Your task to perform on an android device: check android version Image 0: 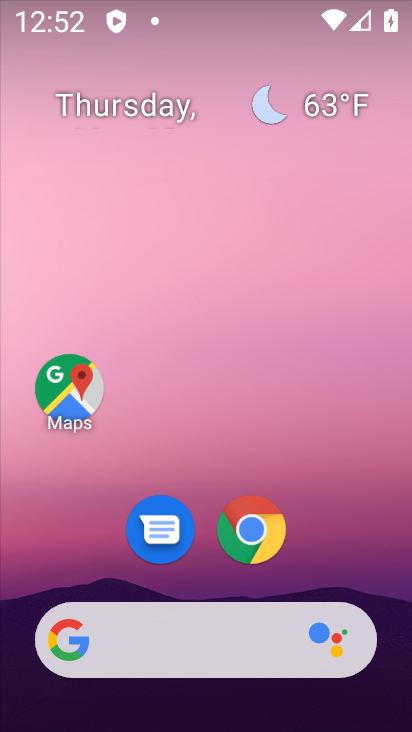
Step 0: drag from (334, 553) to (311, 105)
Your task to perform on an android device: check android version Image 1: 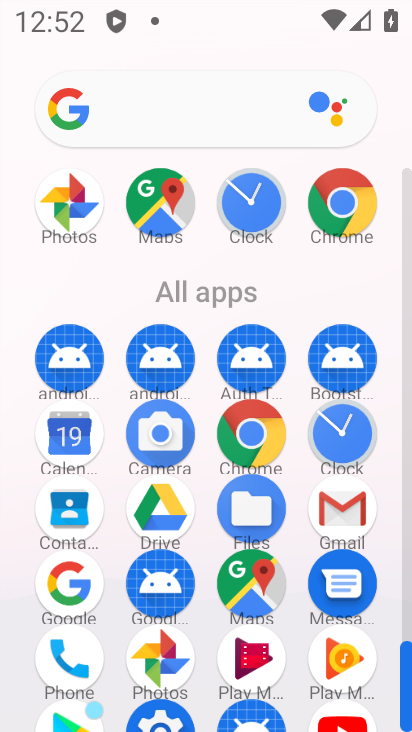
Step 1: drag from (301, 493) to (298, 305)
Your task to perform on an android device: check android version Image 2: 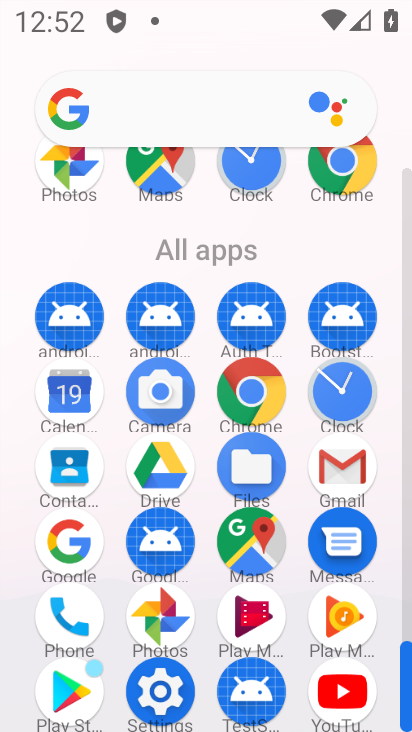
Step 2: click (162, 692)
Your task to perform on an android device: check android version Image 3: 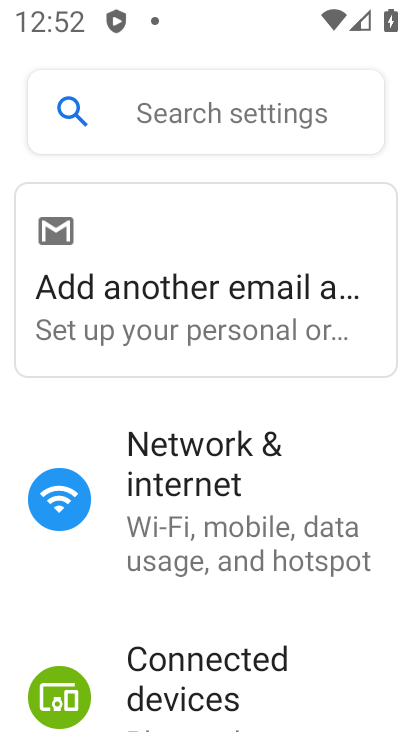
Step 3: drag from (212, 611) to (257, 466)
Your task to perform on an android device: check android version Image 4: 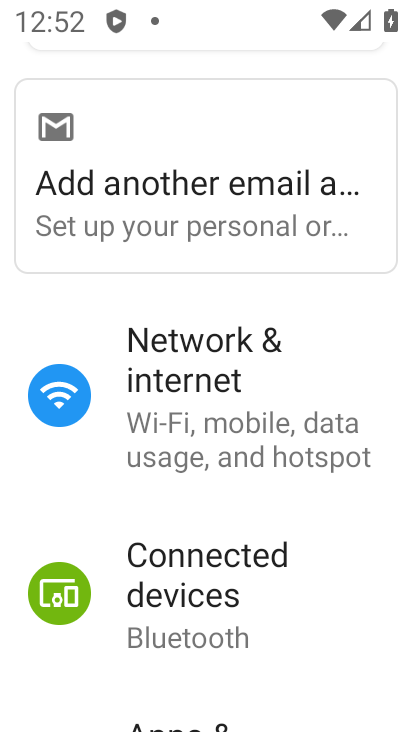
Step 4: drag from (202, 670) to (232, 456)
Your task to perform on an android device: check android version Image 5: 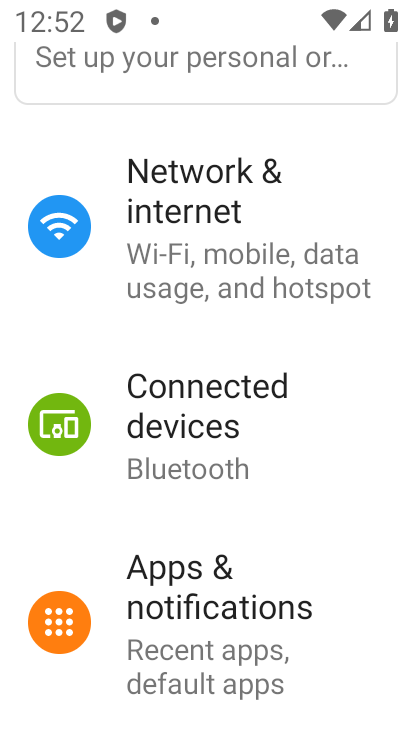
Step 5: drag from (192, 526) to (238, 344)
Your task to perform on an android device: check android version Image 6: 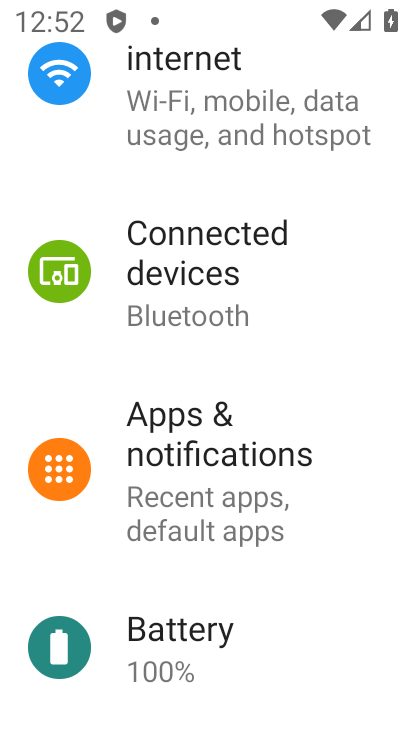
Step 6: drag from (180, 582) to (263, 439)
Your task to perform on an android device: check android version Image 7: 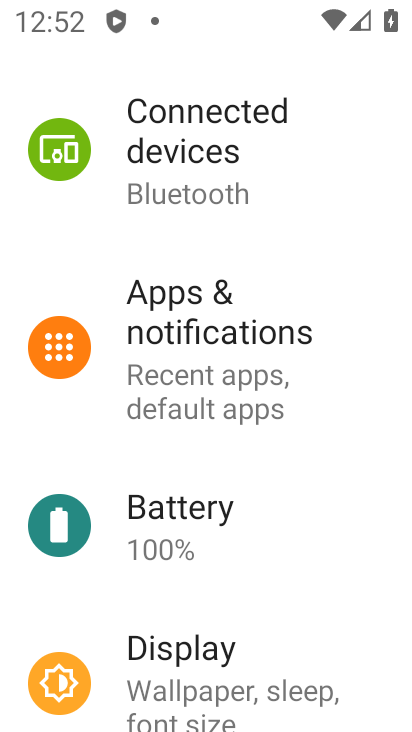
Step 7: drag from (176, 604) to (280, 430)
Your task to perform on an android device: check android version Image 8: 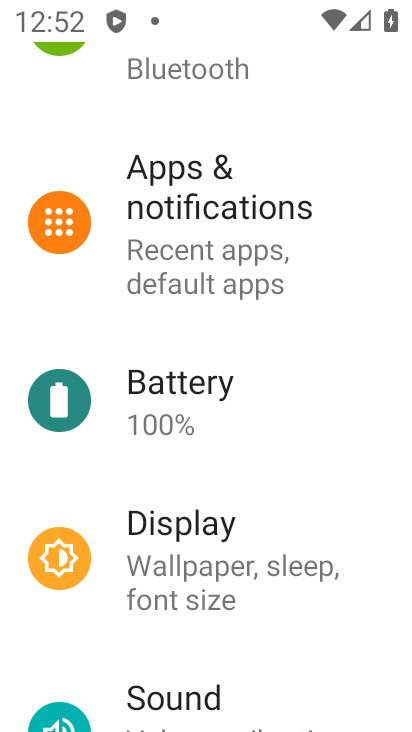
Step 8: drag from (160, 614) to (260, 431)
Your task to perform on an android device: check android version Image 9: 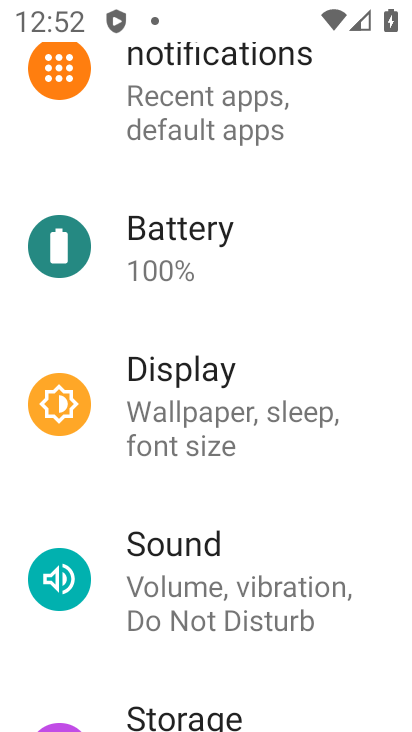
Step 9: drag from (184, 477) to (242, 340)
Your task to perform on an android device: check android version Image 10: 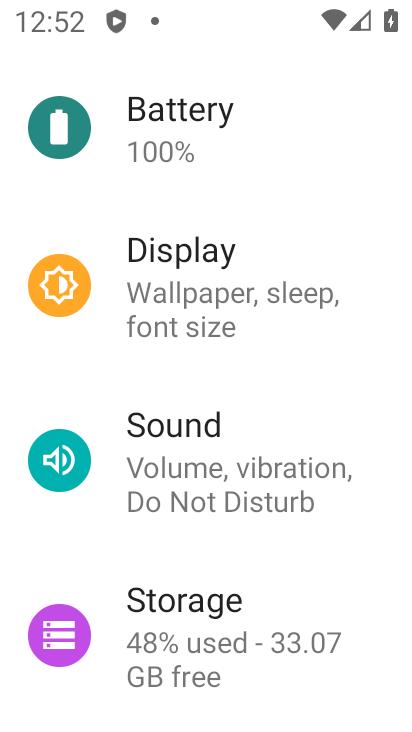
Step 10: drag from (176, 384) to (280, 252)
Your task to perform on an android device: check android version Image 11: 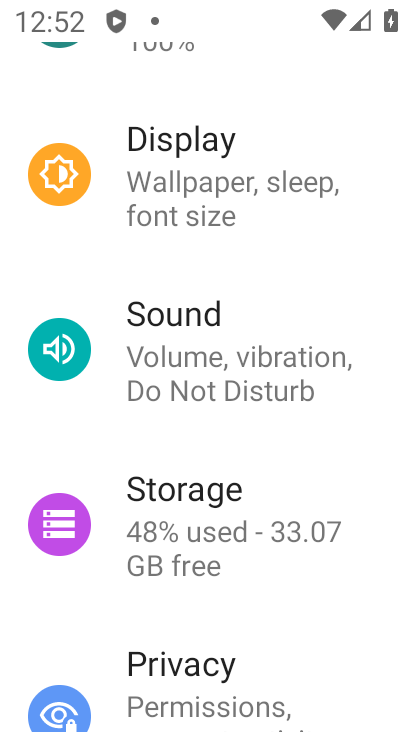
Step 11: drag from (177, 443) to (276, 316)
Your task to perform on an android device: check android version Image 12: 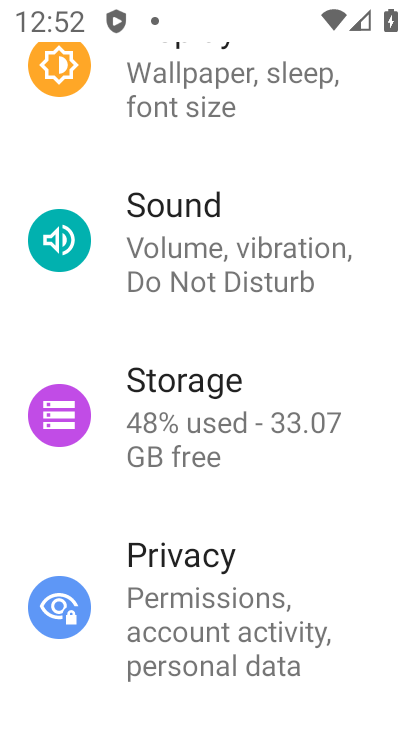
Step 12: drag from (183, 490) to (284, 333)
Your task to perform on an android device: check android version Image 13: 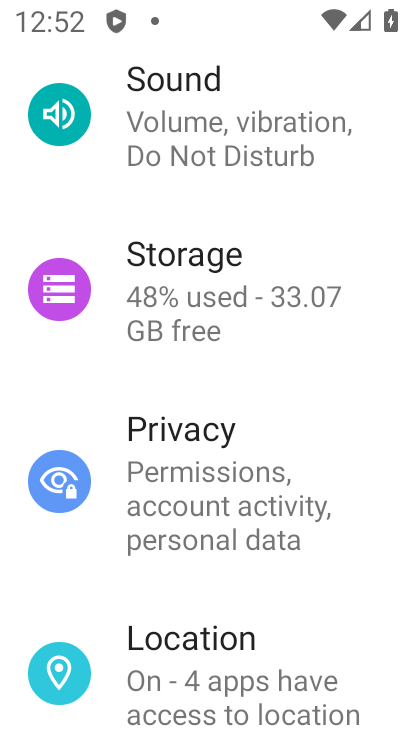
Step 13: drag from (175, 376) to (239, 226)
Your task to perform on an android device: check android version Image 14: 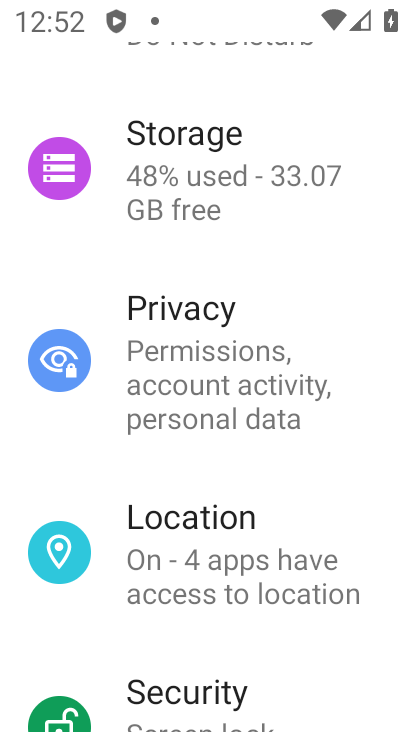
Step 14: drag from (141, 460) to (250, 278)
Your task to perform on an android device: check android version Image 15: 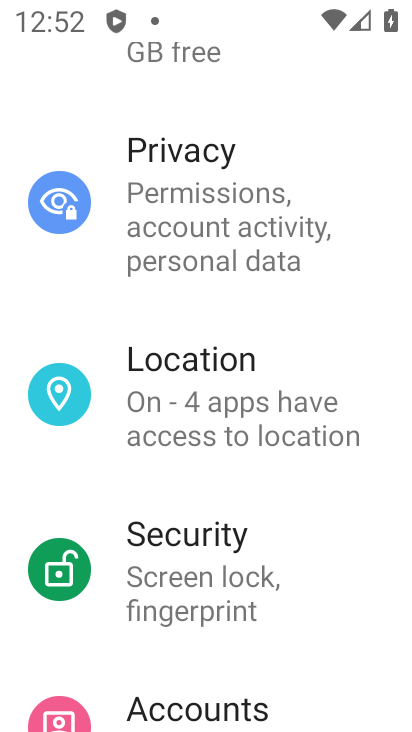
Step 15: drag from (182, 324) to (305, 168)
Your task to perform on an android device: check android version Image 16: 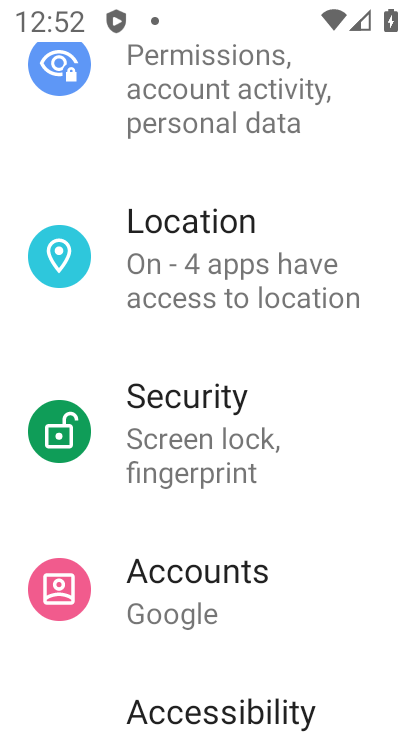
Step 16: drag from (166, 357) to (305, 180)
Your task to perform on an android device: check android version Image 17: 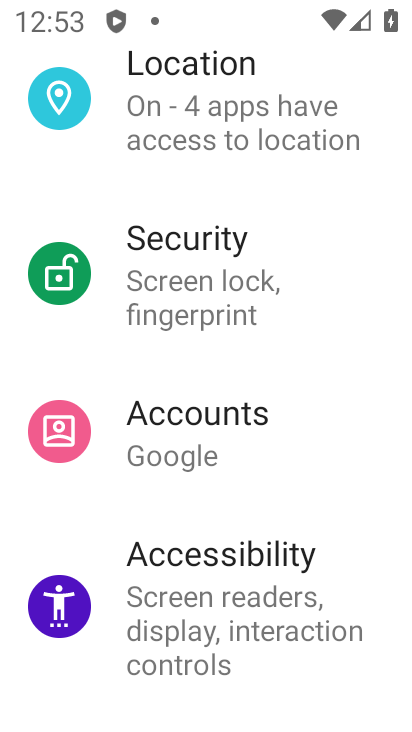
Step 17: drag from (169, 356) to (244, 178)
Your task to perform on an android device: check android version Image 18: 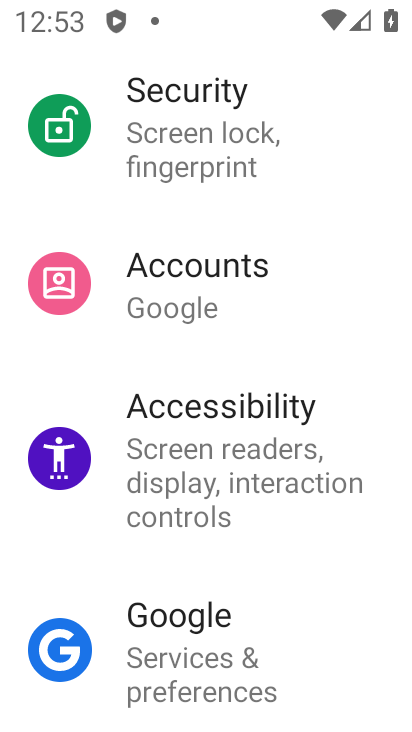
Step 18: drag from (184, 367) to (235, 206)
Your task to perform on an android device: check android version Image 19: 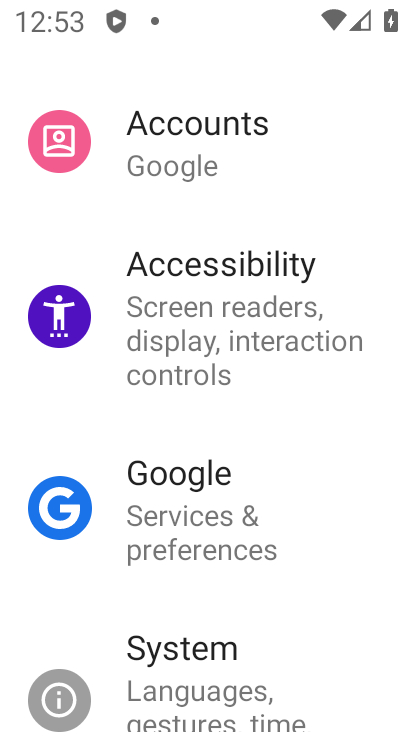
Step 19: drag from (145, 438) to (246, 254)
Your task to perform on an android device: check android version Image 20: 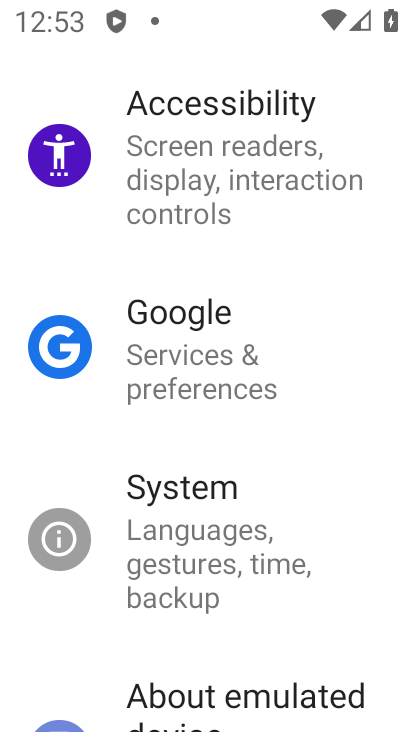
Step 20: drag from (164, 442) to (275, 275)
Your task to perform on an android device: check android version Image 21: 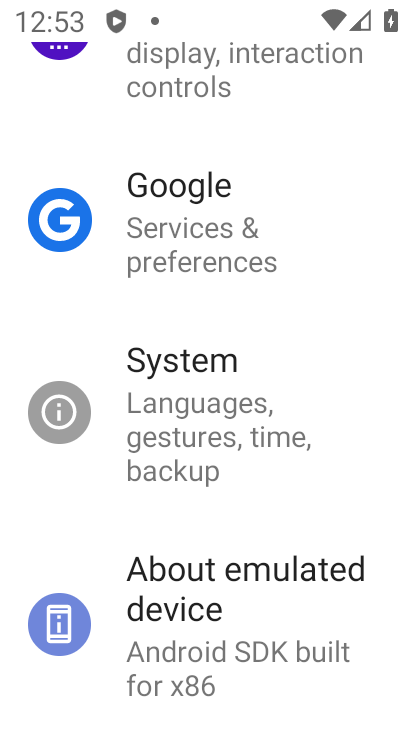
Step 21: click (207, 561)
Your task to perform on an android device: check android version Image 22: 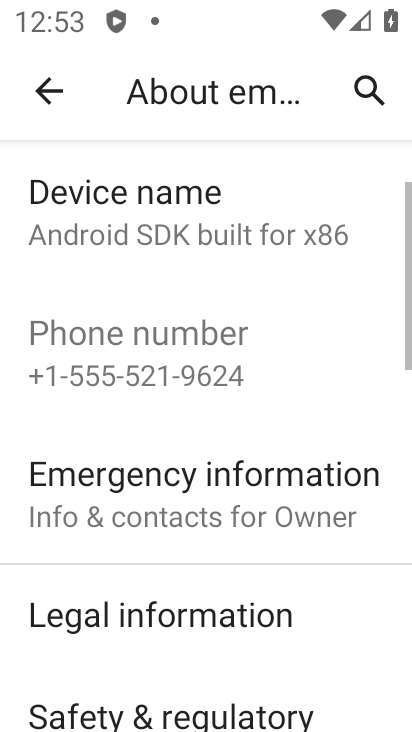
Step 22: drag from (182, 580) to (261, 392)
Your task to perform on an android device: check android version Image 23: 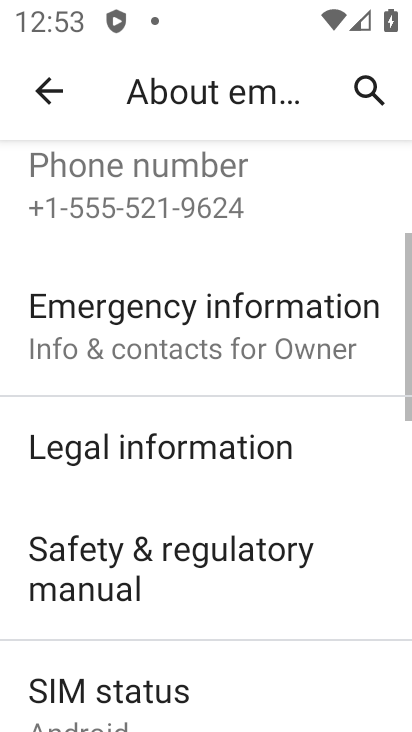
Step 23: drag from (185, 517) to (286, 367)
Your task to perform on an android device: check android version Image 24: 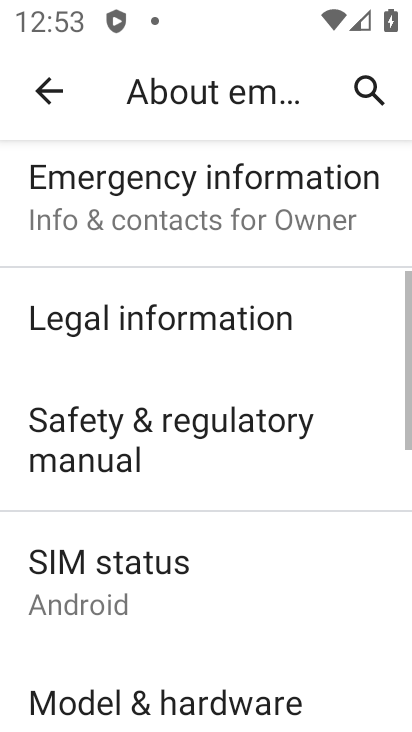
Step 24: drag from (171, 613) to (268, 445)
Your task to perform on an android device: check android version Image 25: 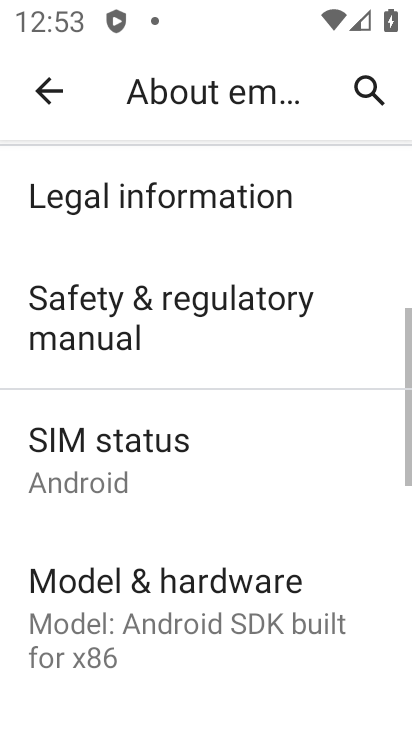
Step 25: drag from (182, 683) to (292, 475)
Your task to perform on an android device: check android version Image 26: 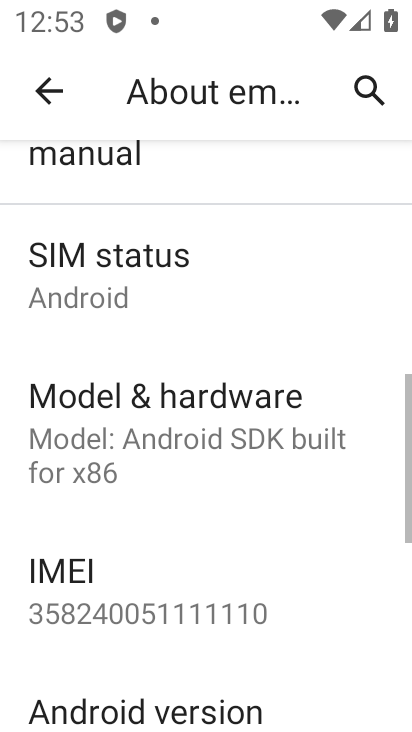
Step 26: drag from (189, 539) to (298, 301)
Your task to perform on an android device: check android version Image 27: 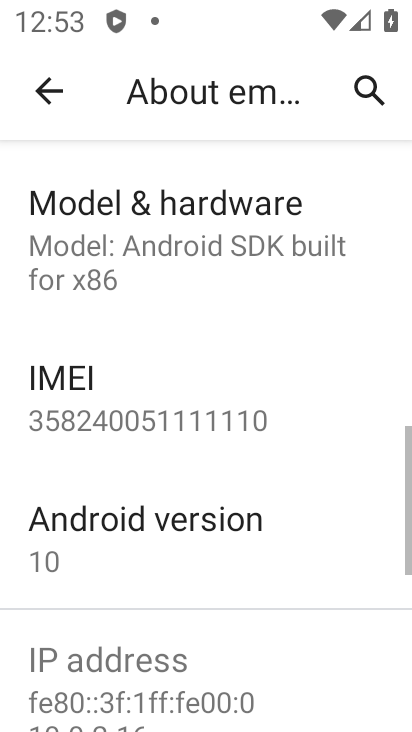
Step 27: click (197, 521)
Your task to perform on an android device: check android version Image 28: 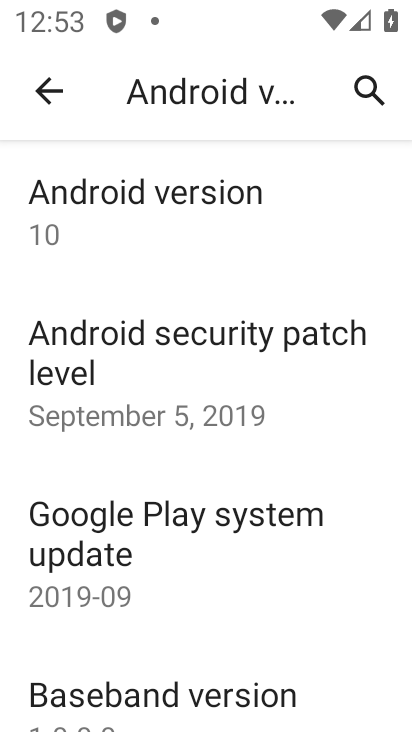
Step 28: task complete